Your task to perform on an android device: see tabs open on other devices in the chrome app Image 0: 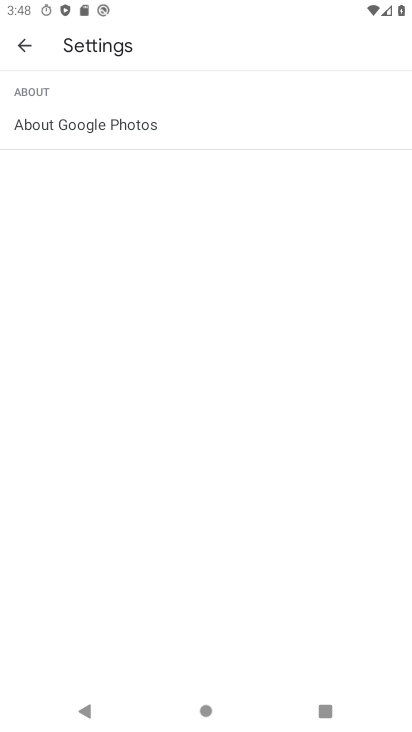
Step 0: press home button
Your task to perform on an android device: see tabs open on other devices in the chrome app Image 1: 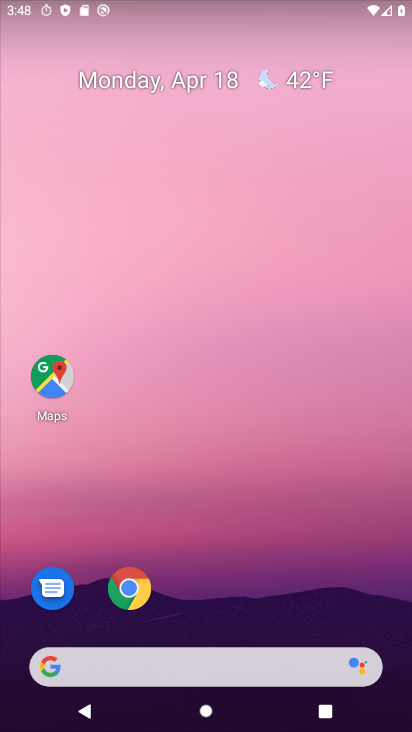
Step 1: click (139, 608)
Your task to perform on an android device: see tabs open on other devices in the chrome app Image 2: 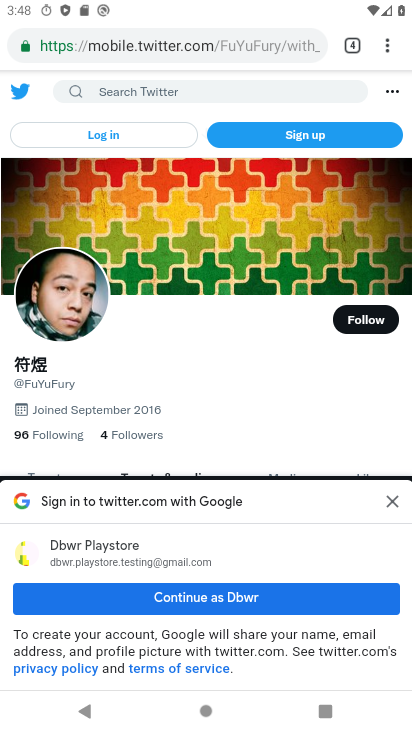
Step 2: click (388, 45)
Your task to perform on an android device: see tabs open on other devices in the chrome app Image 3: 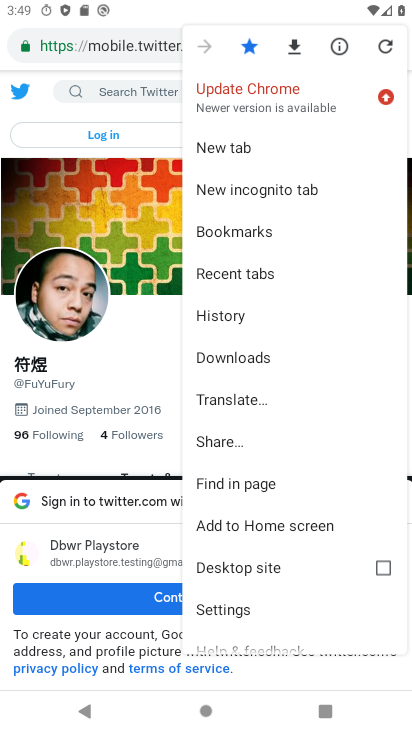
Step 3: click (258, 284)
Your task to perform on an android device: see tabs open on other devices in the chrome app Image 4: 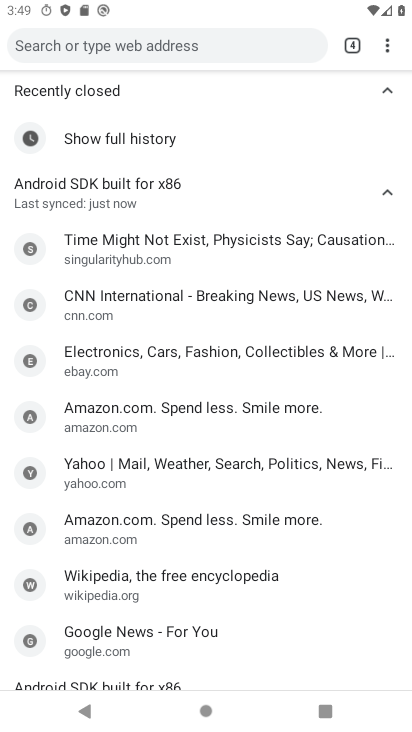
Step 4: task complete